Your task to perform on an android device: open chrome privacy settings Image 0: 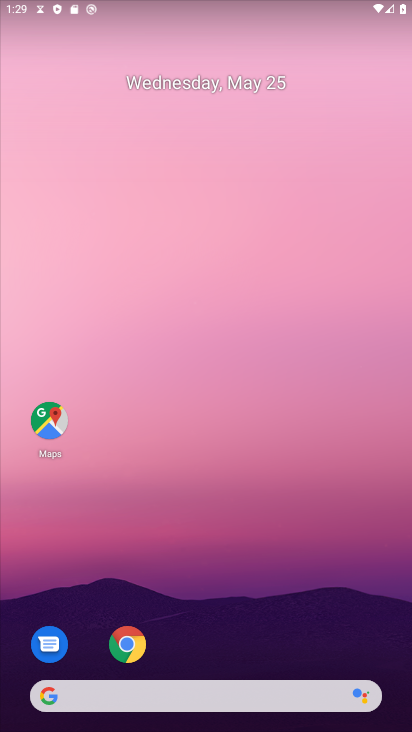
Step 0: click (130, 643)
Your task to perform on an android device: open chrome privacy settings Image 1: 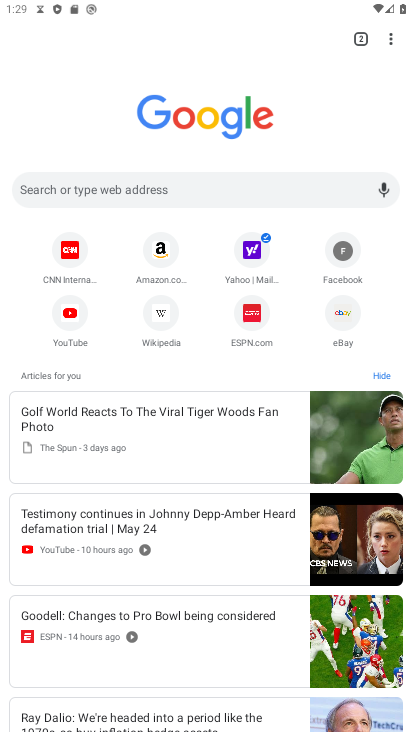
Step 1: click (393, 39)
Your task to perform on an android device: open chrome privacy settings Image 2: 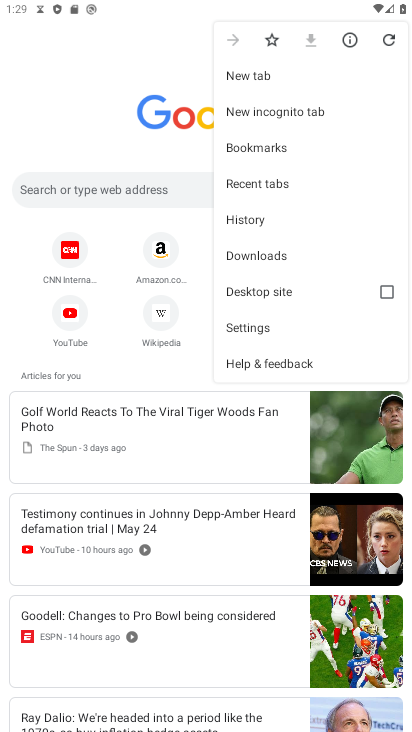
Step 2: click (259, 327)
Your task to perform on an android device: open chrome privacy settings Image 3: 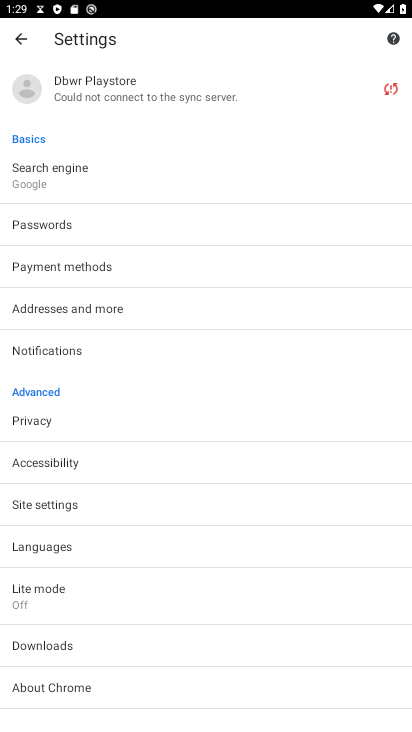
Step 3: click (32, 429)
Your task to perform on an android device: open chrome privacy settings Image 4: 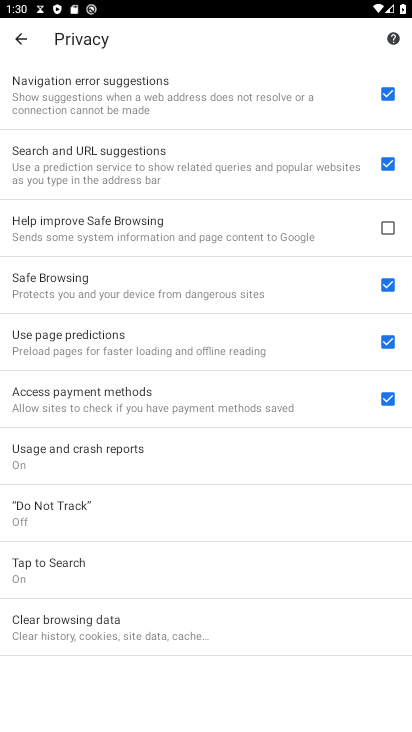
Step 4: task complete